Your task to perform on an android device: turn off improve location accuracy Image 0: 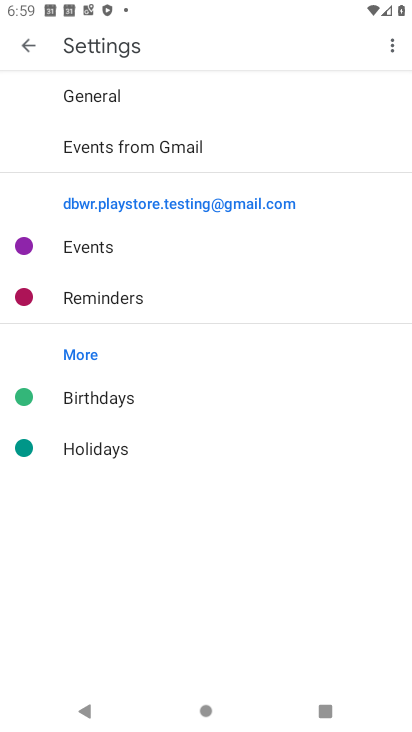
Step 0: press home button
Your task to perform on an android device: turn off improve location accuracy Image 1: 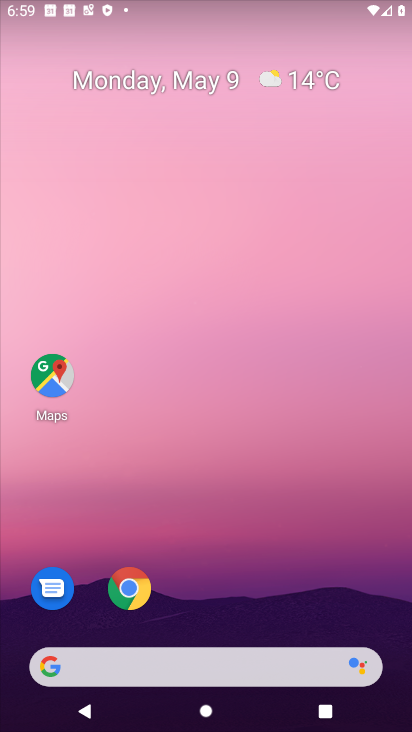
Step 1: drag from (305, 629) to (292, 116)
Your task to perform on an android device: turn off improve location accuracy Image 2: 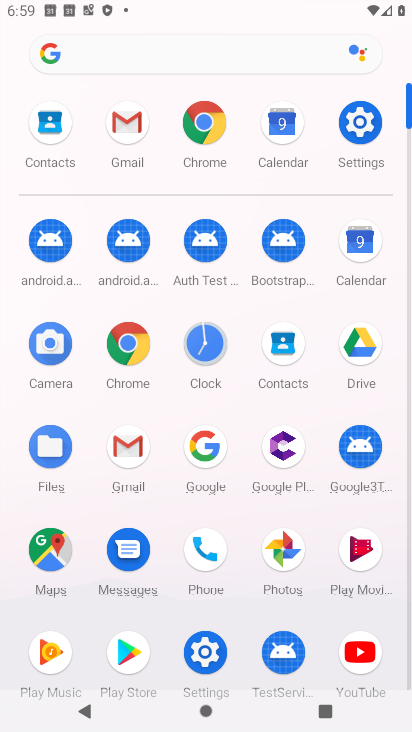
Step 2: click (352, 126)
Your task to perform on an android device: turn off improve location accuracy Image 3: 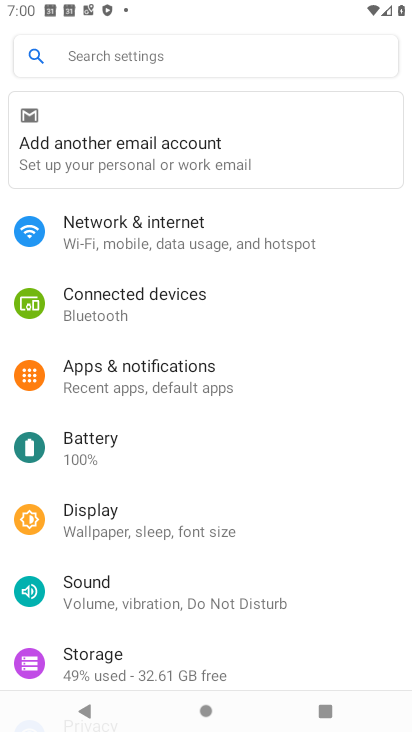
Step 3: drag from (211, 634) to (219, 202)
Your task to perform on an android device: turn off improve location accuracy Image 4: 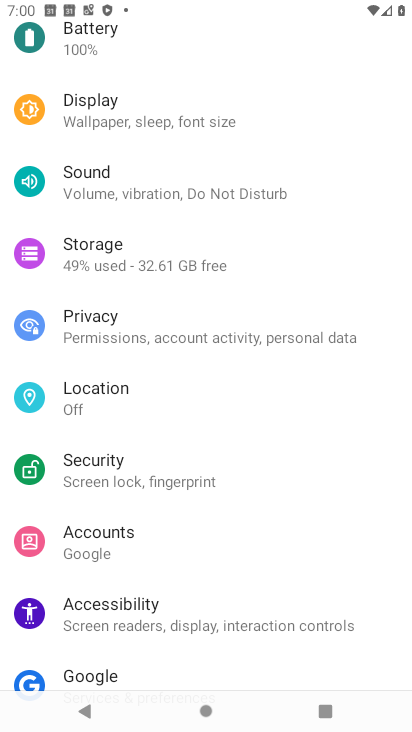
Step 4: click (140, 400)
Your task to perform on an android device: turn off improve location accuracy Image 5: 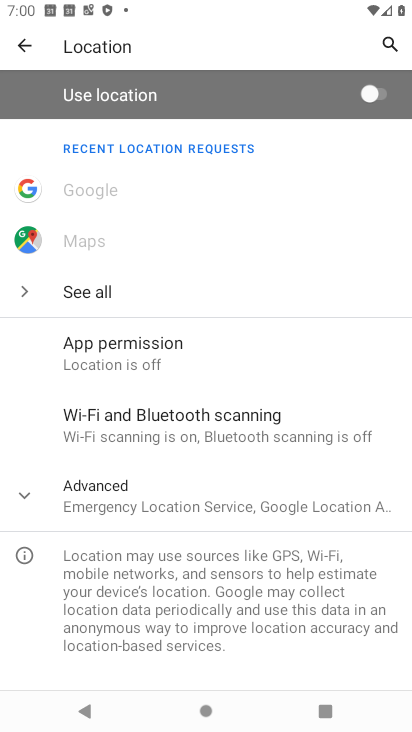
Step 5: click (151, 511)
Your task to perform on an android device: turn off improve location accuracy Image 6: 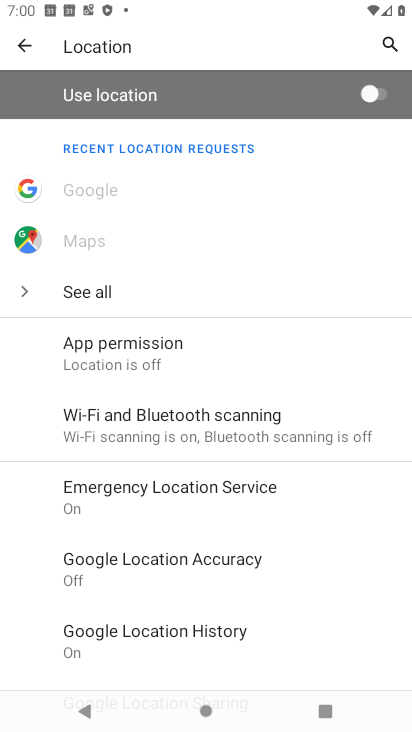
Step 6: click (161, 569)
Your task to perform on an android device: turn off improve location accuracy Image 7: 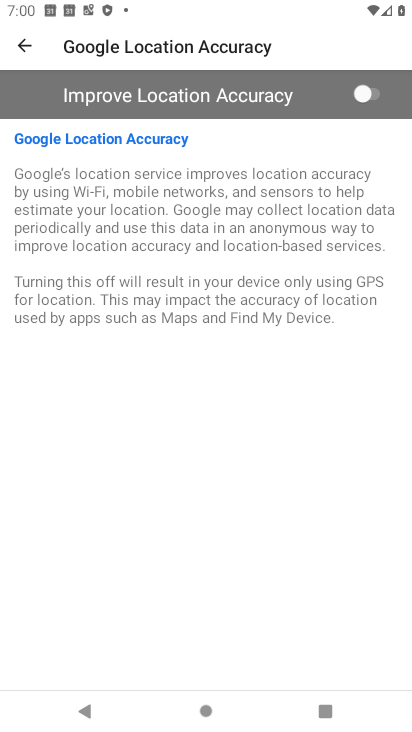
Step 7: task complete